Your task to perform on an android device: set default search engine in the chrome app Image 0: 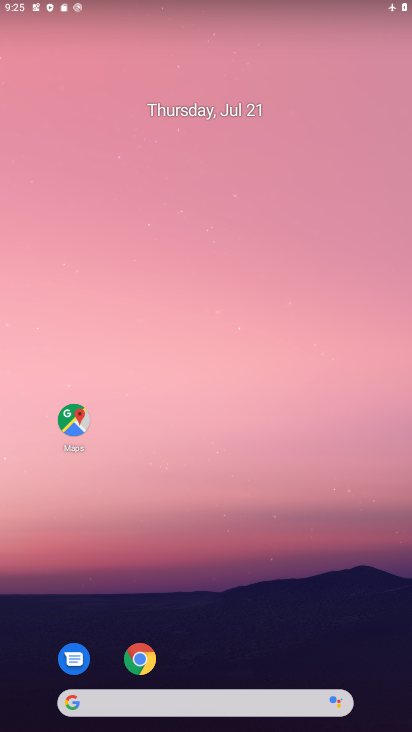
Step 0: drag from (240, 671) to (241, 204)
Your task to perform on an android device: set default search engine in the chrome app Image 1: 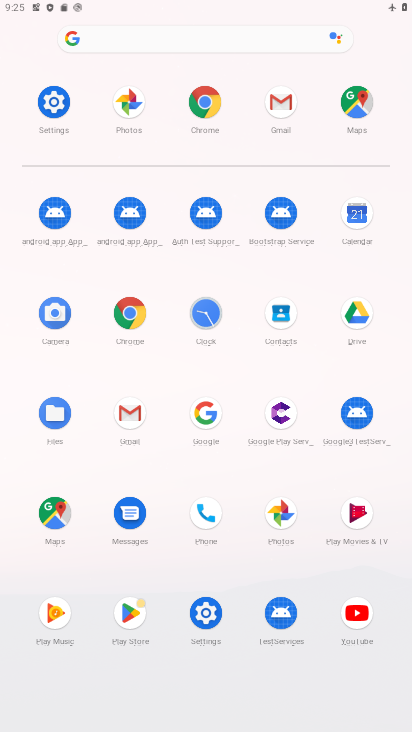
Step 1: click (185, 105)
Your task to perform on an android device: set default search engine in the chrome app Image 2: 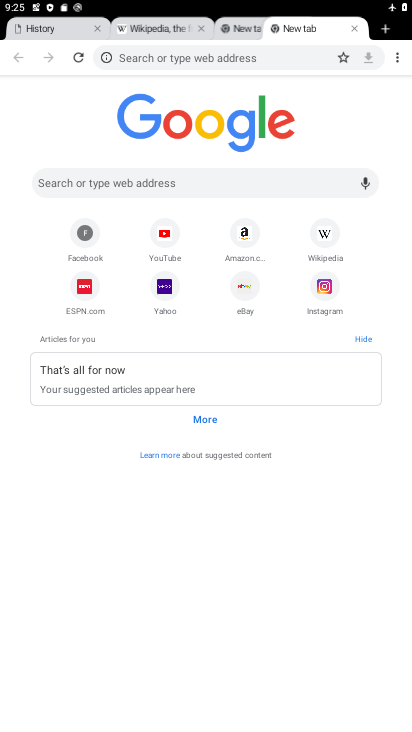
Step 2: drag from (398, 52) to (282, 266)
Your task to perform on an android device: set default search engine in the chrome app Image 3: 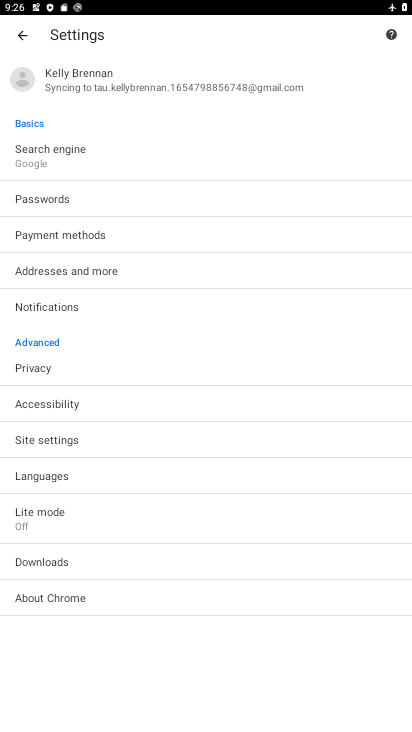
Step 3: click (18, 157)
Your task to perform on an android device: set default search engine in the chrome app Image 4: 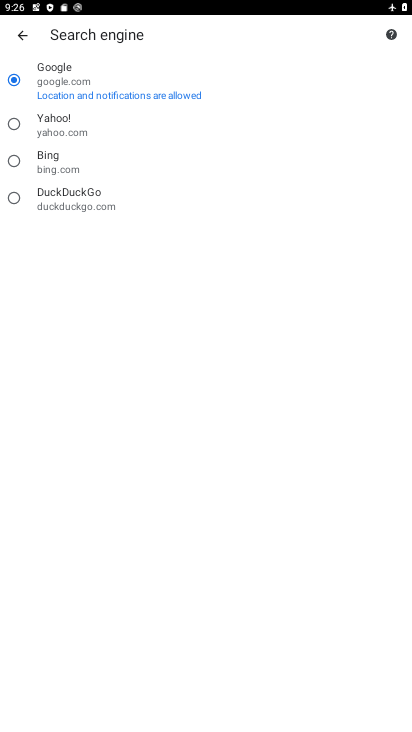
Step 4: task complete